Your task to perform on an android device: Go to Yahoo.com Image 0: 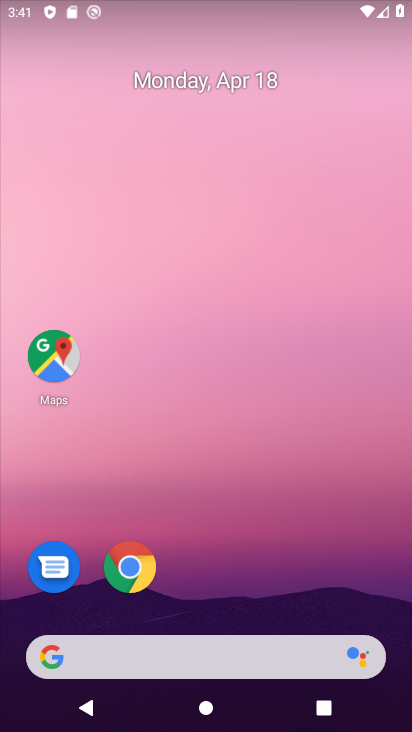
Step 0: click (139, 577)
Your task to perform on an android device: Go to Yahoo.com Image 1: 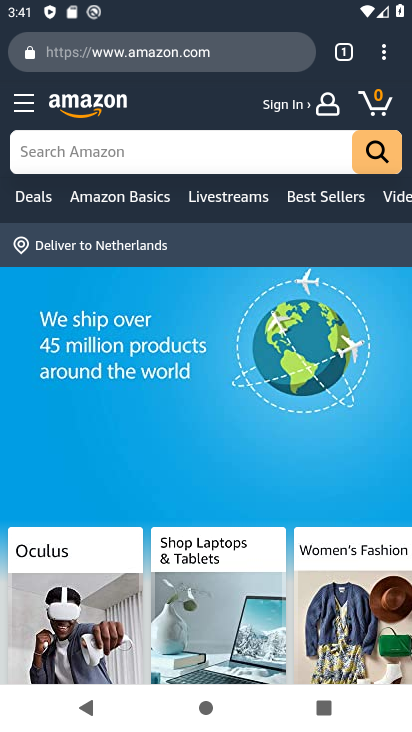
Step 1: click (178, 42)
Your task to perform on an android device: Go to Yahoo.com Image 2: 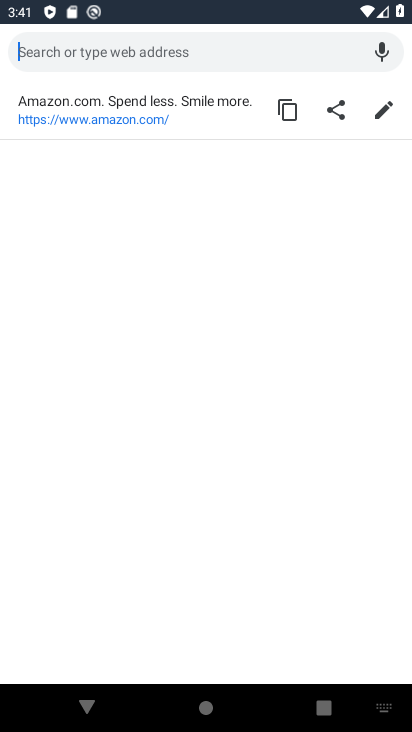
Step 2: type "yahoo.com"
Your task to perform on an android device: Go to Yahoo.com Image 3: 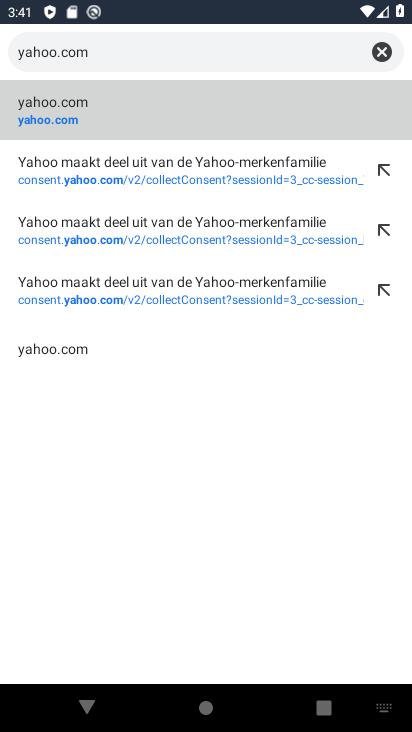
Step 3: click (36, 108)
Your task to perform on an android device: Go to Yahoo.com Image 4: 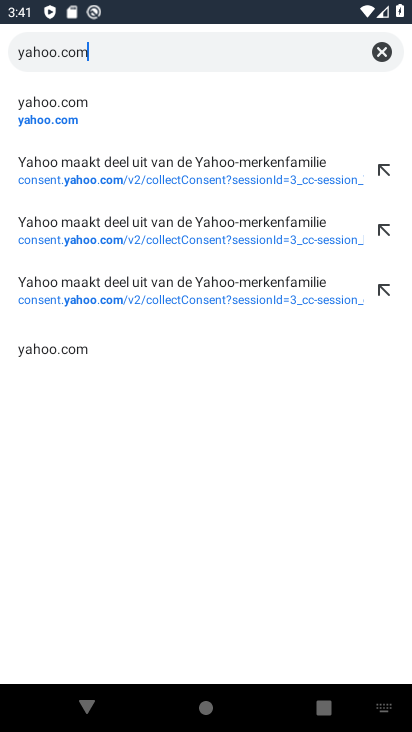
Step 4: click (64, 117)
Your task to perform on an android device: Go to Yahoo.com Image 5: 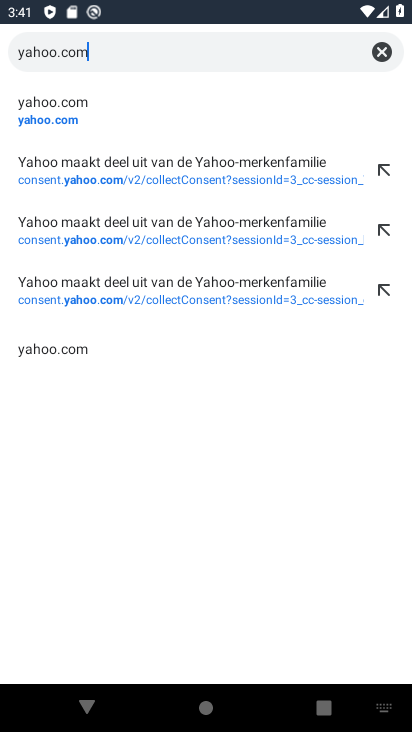
Step 5: click (65, 120)
Your task to perform on an android device: Go to Yahoo.com Image 6: 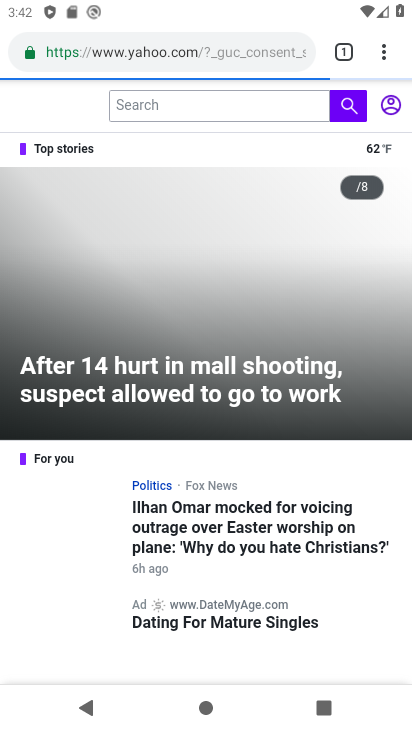
Step 6: task complete